Your task to perform on an android device: open chrome privacy settings Image 0: 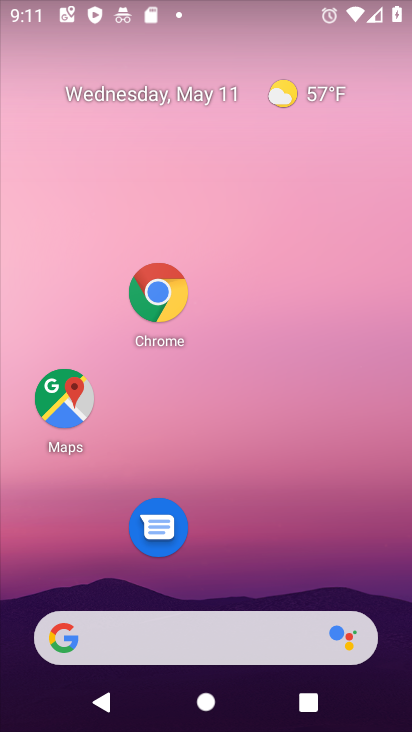
Step 0: click (158, 315)
Your task to perform on an android device: open chrome privacy settings Image 1: 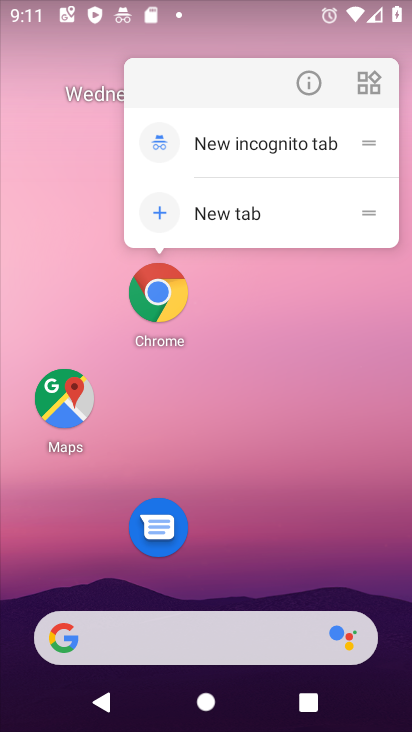
Step 1: click (157, 297)
Your task to perform on an android device: open chrome privacy settings Image 2: 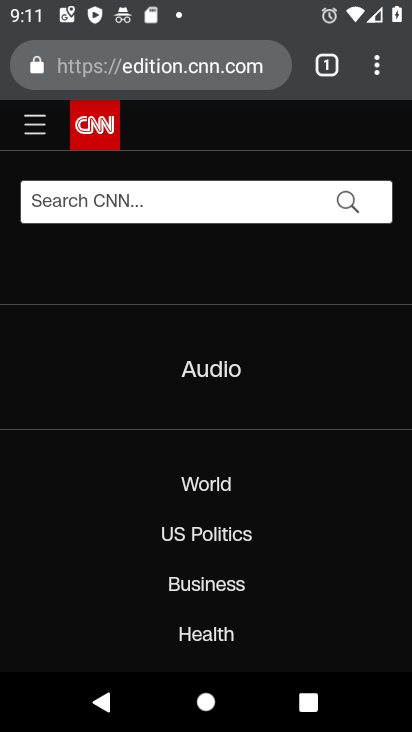
Step 2: click (378, 67)
Your task to perform on an android device: open chrome privacy settings Image 3: 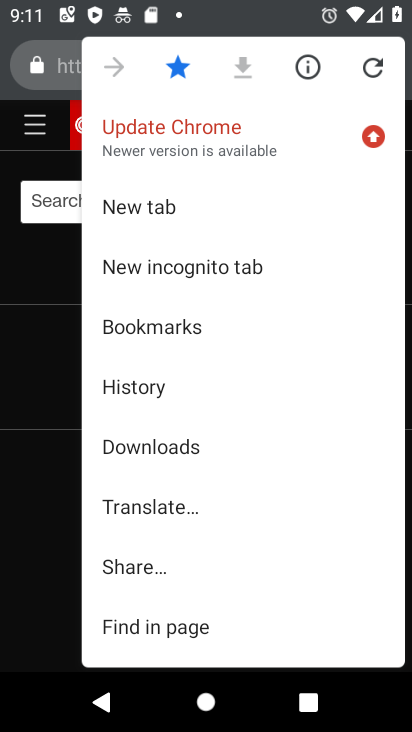
Step 3: drag from (225, 527) to (214, 135)
Your task to perform on an android device: open chrome privacy settings Image 4: 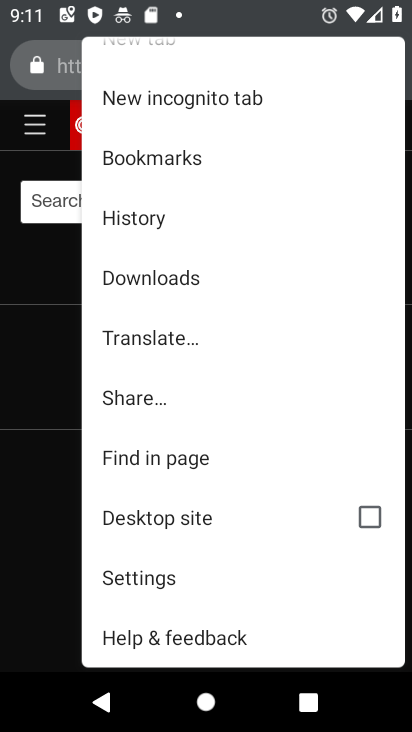
Step 4: click (140, 570)
Your task to perform on an android device: open chrome privacy settings Image 5: 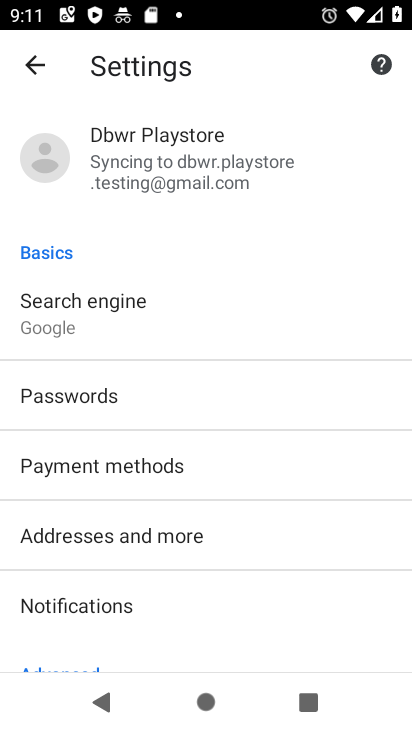
Step 5: drag from (158, 481) to (158, 304)
Your task to perform on an android device: open chrome privacy settings Image 6: 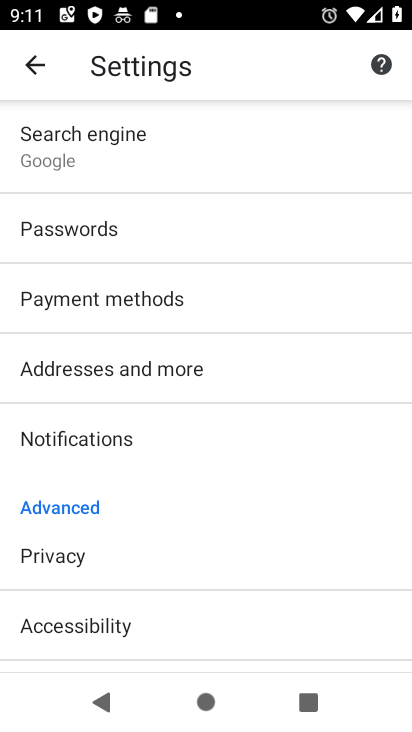
Step 6: click (66, 547)
Your task to perform on an android device: open chrome privacy settings Image 7: 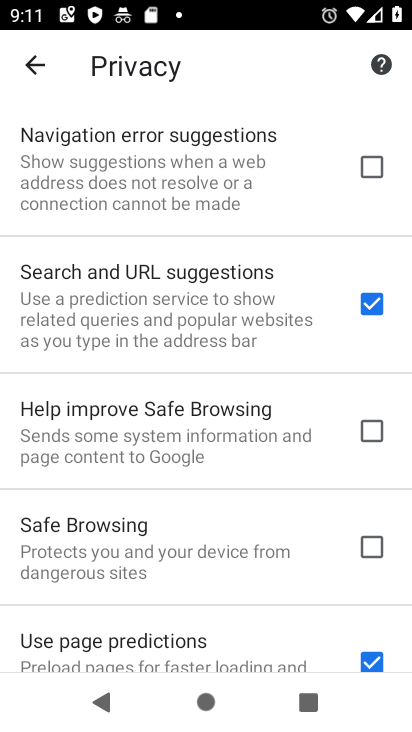
Step 7: task complete